Your task to perform on an android device: turn off location history Image 0: 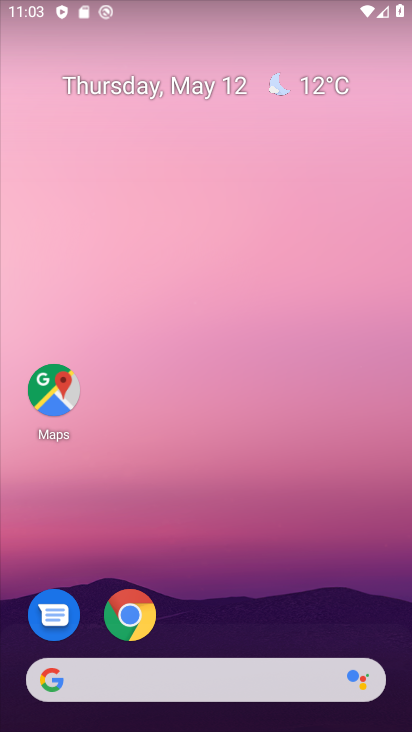
Step 0: drag from (210, 635) to (219, 482)
Your task to perform on an android device: turn off location history Image 1: 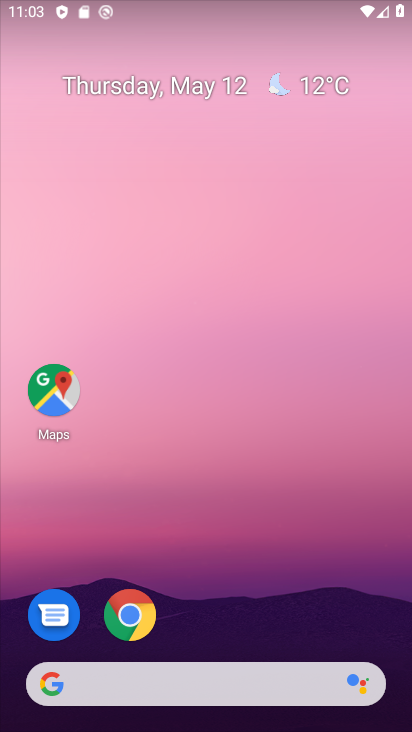
Step 1: drag from (224, 617) to (244, 245)
Your task to perform on an android device: turn off location history Image 2: 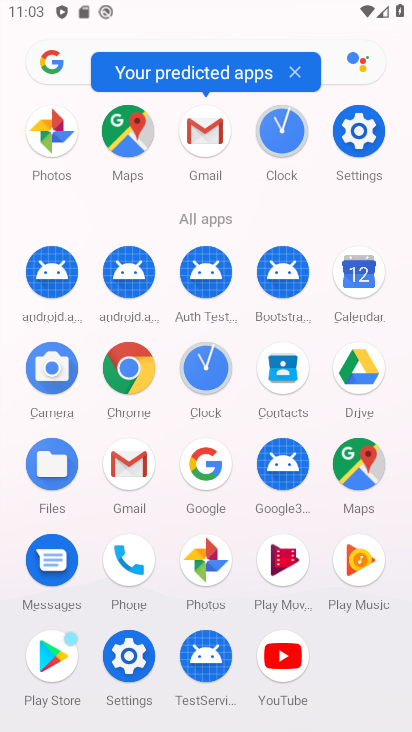
Step 2: click (364, 160)
Your task to perform on an android device: turn off location history Image 3: 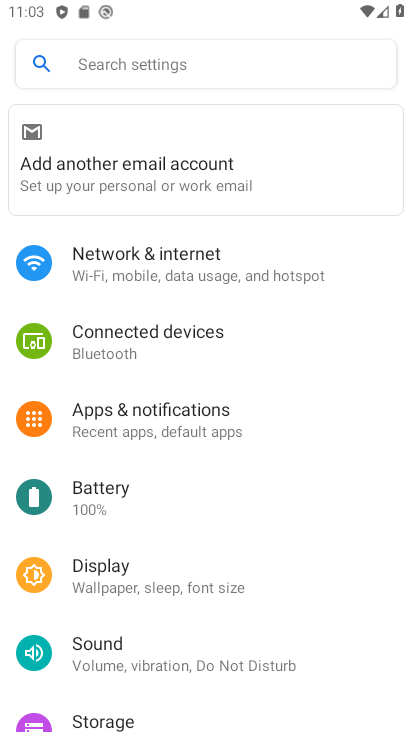
Step 3: drag from (237, 554) to (260, 295)
Your task to perform on an android device: turn off location history Image 4: 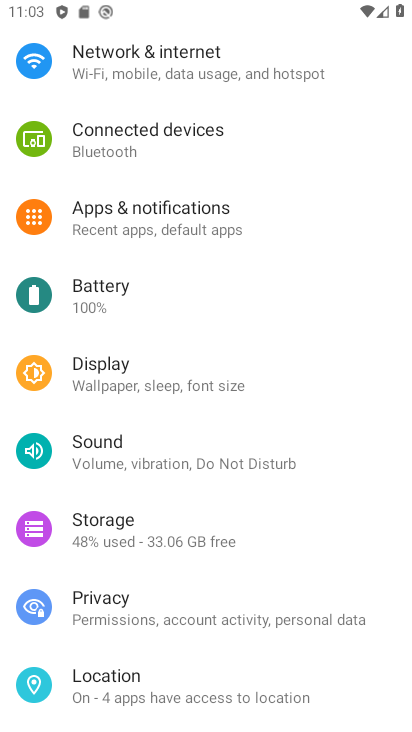
Step 4: drag from (148, 644) to (174, 398)
Your task to perform on an android device: turn off location history Image 5: 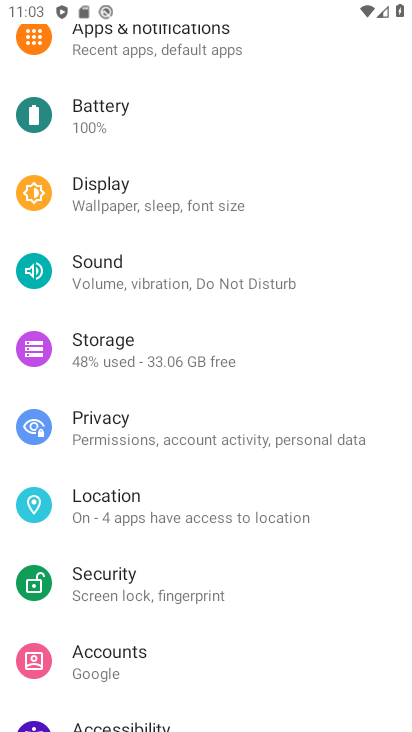
Step 5: click (172, 513)
Your task to perform on an android device: turn off location history Image 6: 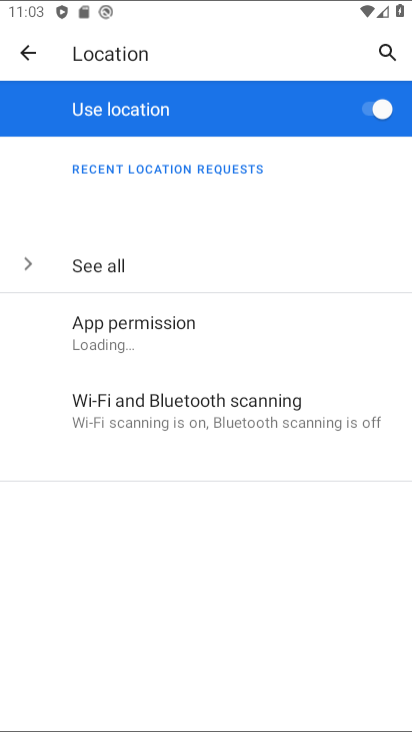
Step 6: drag from (215, 443) to (249, 318)
Your task to perform on an android device: turn off location history Image 7: 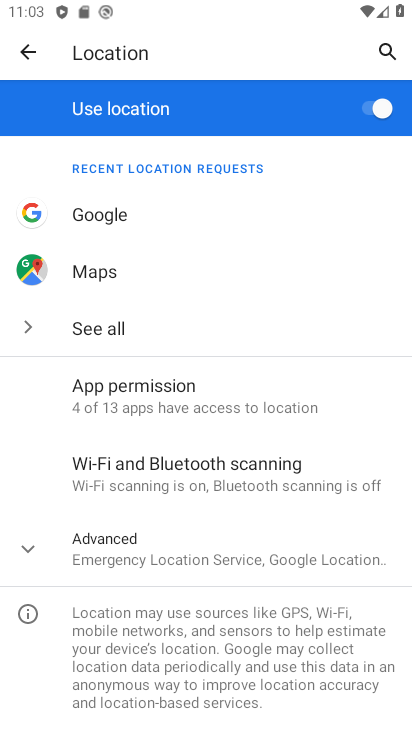
Step 7: drag from (234, 530) to (243, 327)
Your task to perform on an android device: turn off location history Image 8: 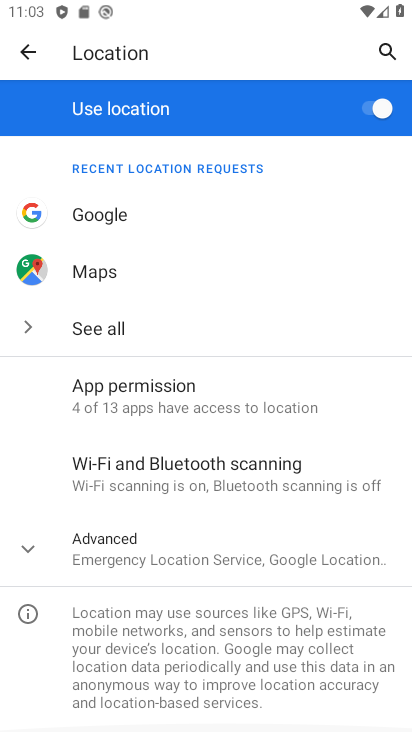
Step 8: click (224, 538)
Your task to perform on an android device: turn off location history Image 9: 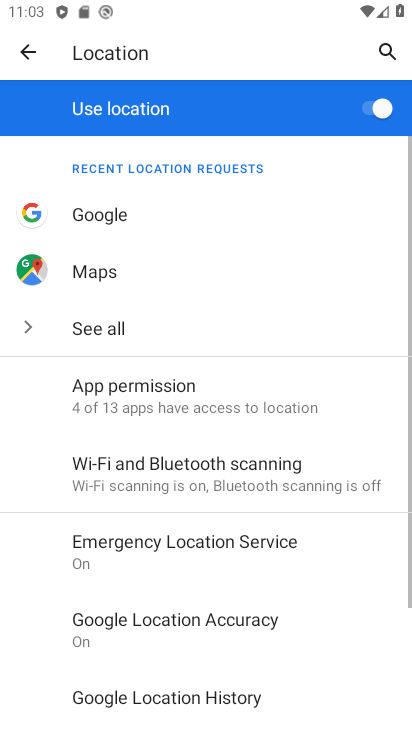
Step 9: drag from (239, 582) to (273, 351)
Your task to perform on an android device: turn off location history Image 10: 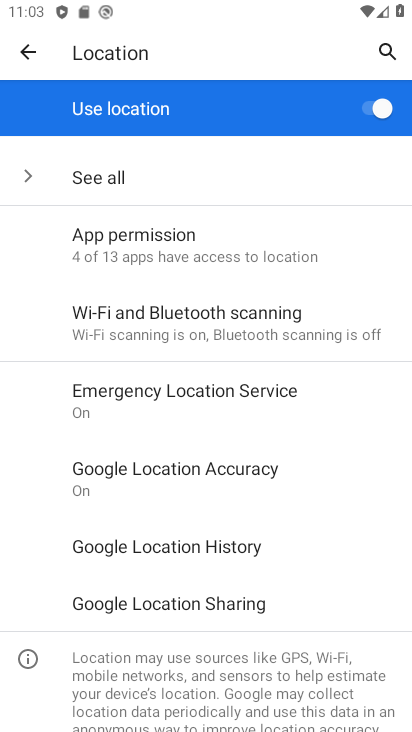
Step 10: click (262, 531)
Your task to perform on an android device: turn off location history Image 11: 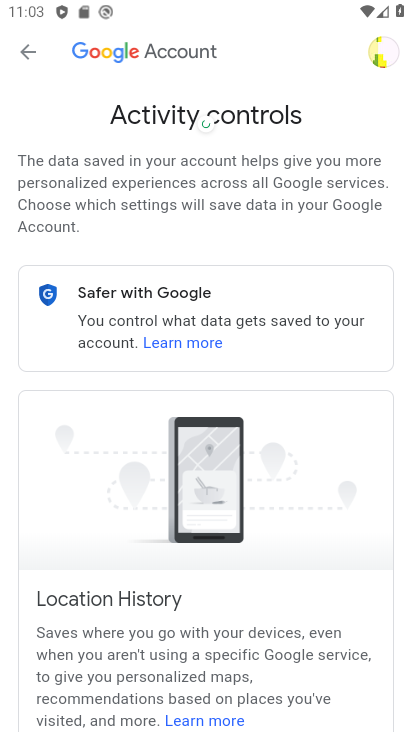
Step 11: task complete